Your task to perform on an android device: Show me productivity apps on the Play Store Image 0: 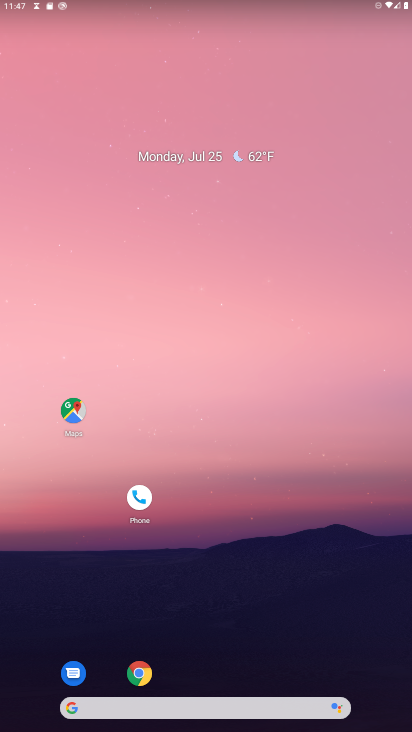
Step 0: press home button
Your task to perform on an android device: Show me productivity apps on the Play Store Image 1: 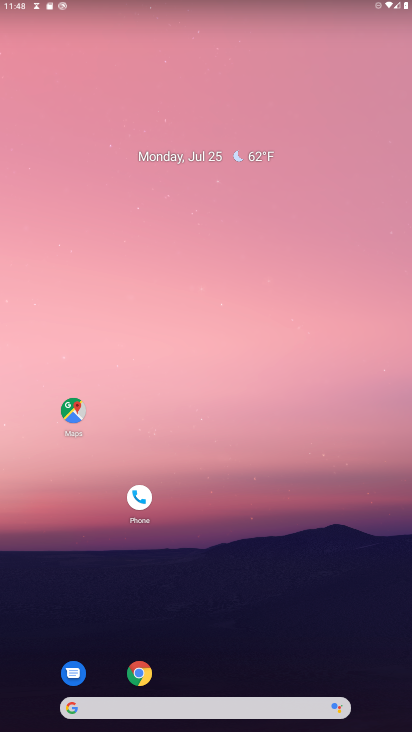
Step 1: drag from (266, 660) to (263, 60)
Your task to perform on an android device: Show me productivity apps on the Play Store Image 2: 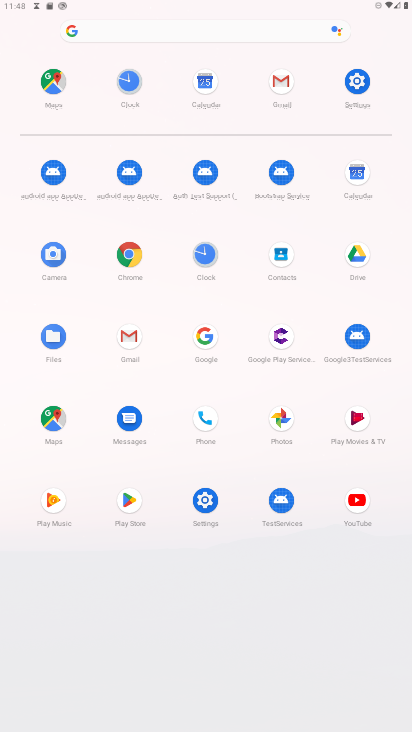
Step 2: click (128, 499)
Your task to perform on an android device: Show me productivity apps on the Play Store Image 3: 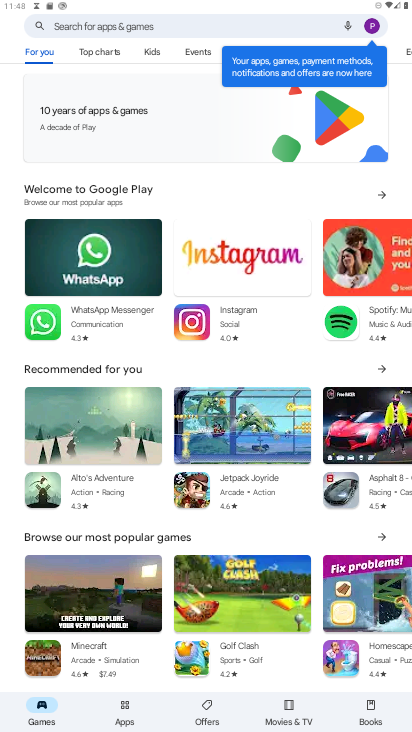
Step 3: click (122, 710)
Your task to perform on an android device: Show me productivity apps on the Play Store Image 4: 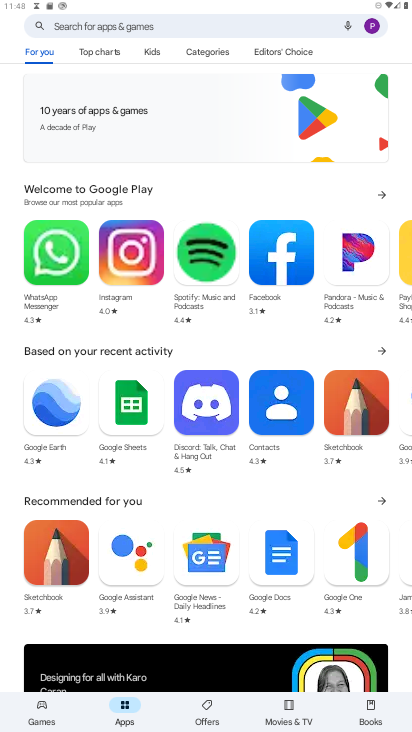
Step 4: click (207, 54)
Your task to perform on an android device: Show me productivity apps on the Play Store Image 5: 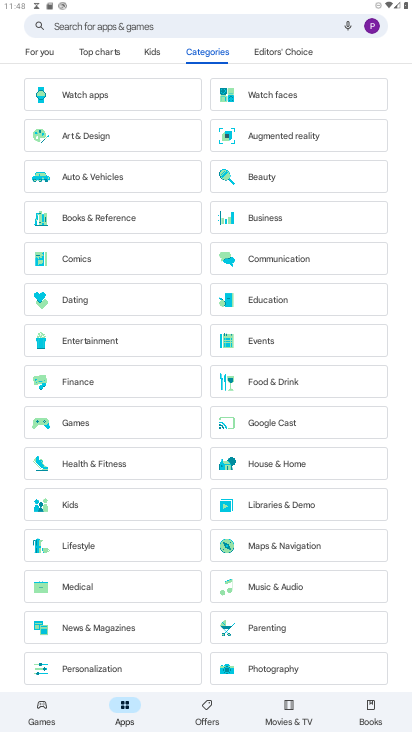
Step 5: drag from (399, 630) to (397, 445)
Your task to perform on an android device: Show me productivity apps on the Play Store Image 6: 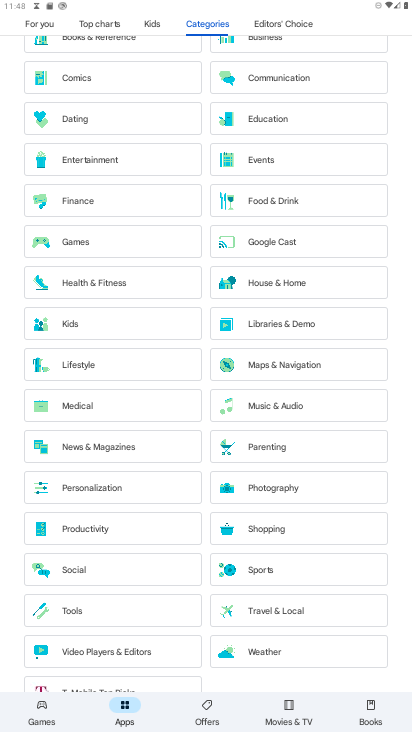
Step 6: click (77, 532)
Your task to perform on an android device: Show me productivity apps on the Play Store Image 7: 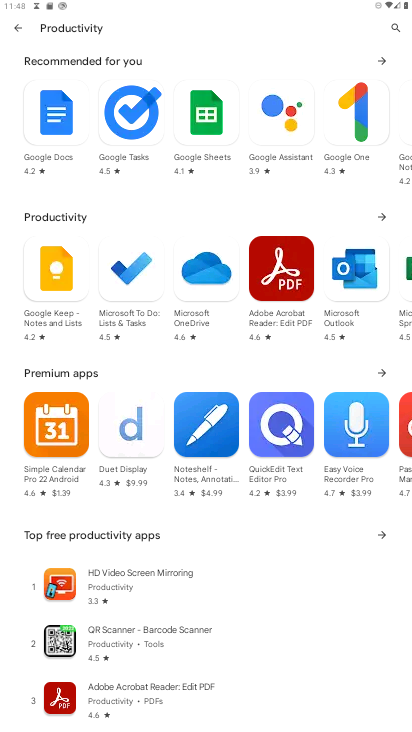
Step 7: task complete